Your task to perform on an android device: Open Youtube and go to "Your channel" Image 0: 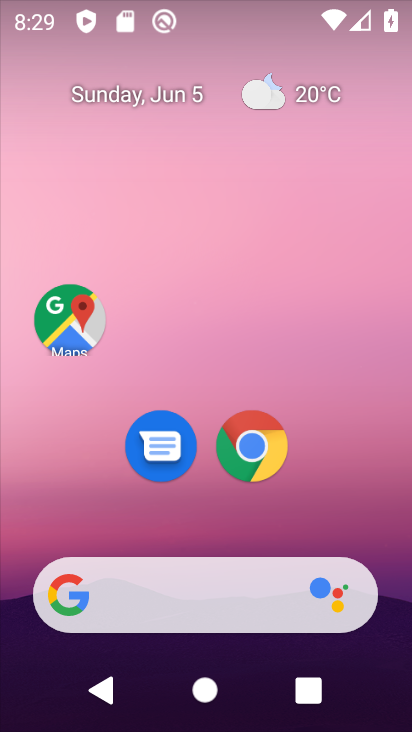
Step 0: drag from (75, 535) to (246, 48)
Your task to perform on an android device: Open Youtube and go to "Your channel" Image 1: 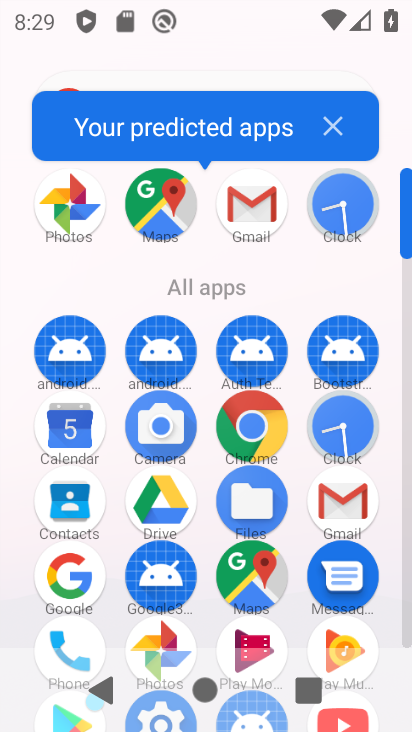
Step 1: drag from (293, 587) to (331, 352)
Your task to perform on an android device: Open Youtube and go to "Your channel" Image 2: 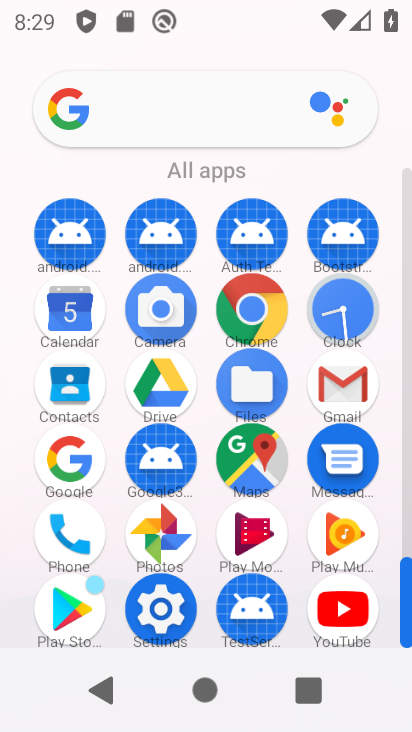
Step 2: click (342, 614)
Your task to perform on an android device: Open Youtube and go to "Your channel" Image 3: 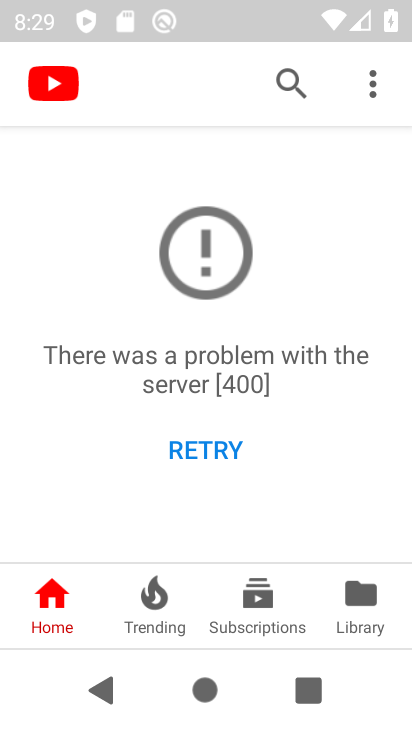
Step 3: click (366, 596)
Your task to perform on an android device: Open Youtube and go to "Your channel" Image 4: 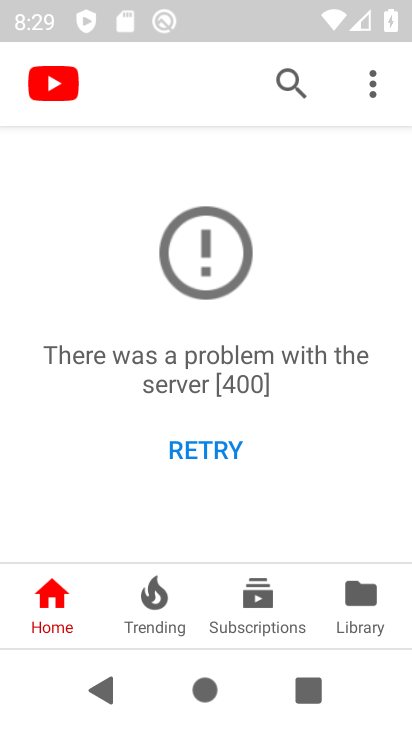
Step 4: task complete